Your task to perform on an android device: turn on the 24-hour format for clock Image 0: 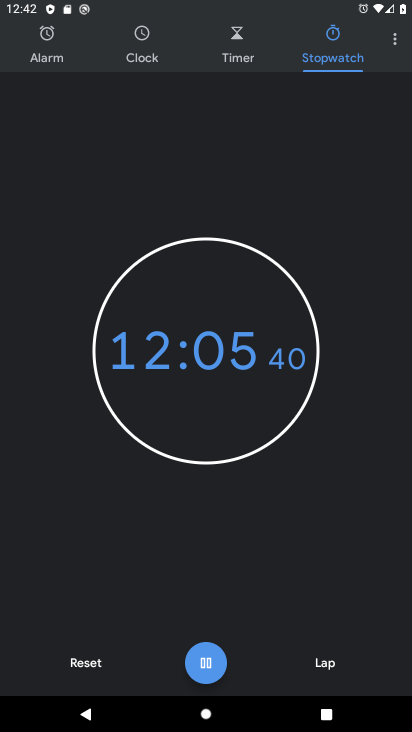
Step 0: click (89, 662)
Your task to perform on an android device: turn on the 24-hour format for clock Image 1: 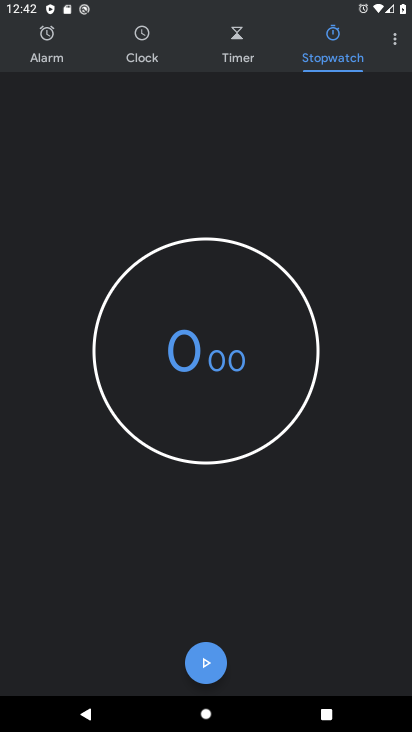
Step 1: click (391, 39)
Your task to perform on an android device: turn on the 24-hour format for clock Image 2: 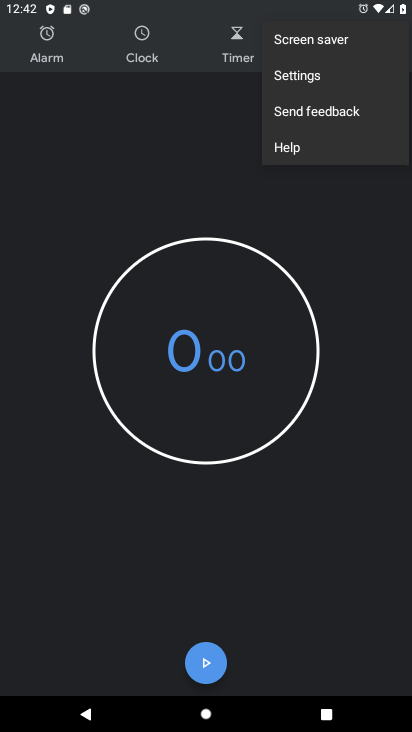
Step 2: click (327, 76)
Your task to perform on an android device: turn on the 24-hour format for clock Image 3: 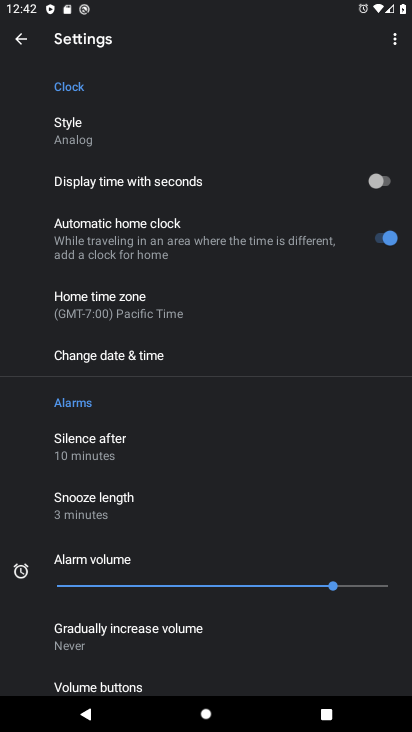
Step 3: click (176, 354)
Your task to perform on an android device: turn on the 24-hour format for clock Image 4: 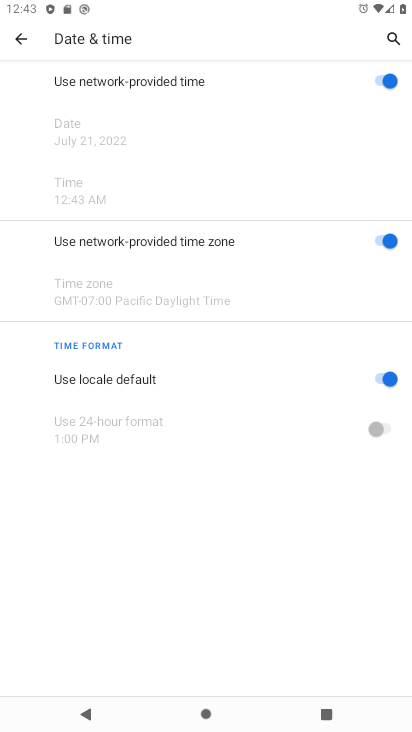
Step 4: click (382, 379)
Your task to perform on an android device: turn on the 24-hour format for clock Image 5: 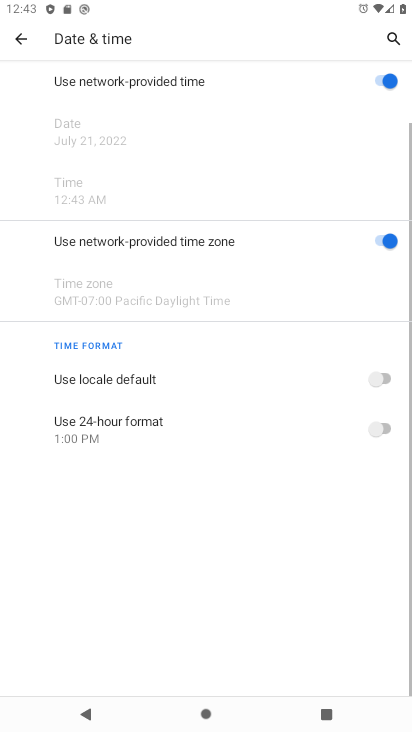
Step 5: click (385, 426)
Your task to perform on an android device: turn on the 24-hour format for clock Image 6: 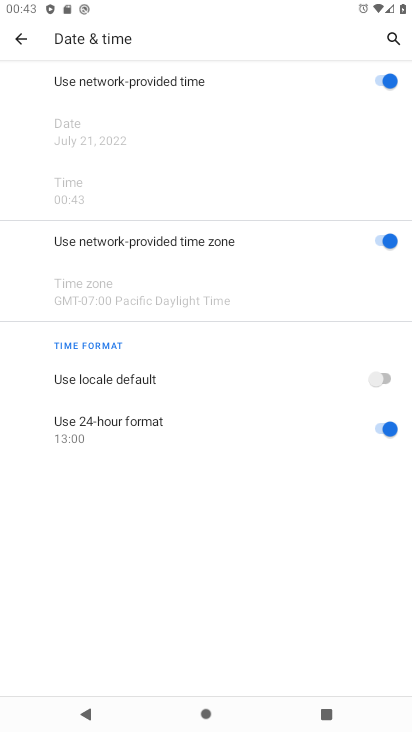
Step 6: task complete